Your task to perform on an android device: Open battery settings Image 0: 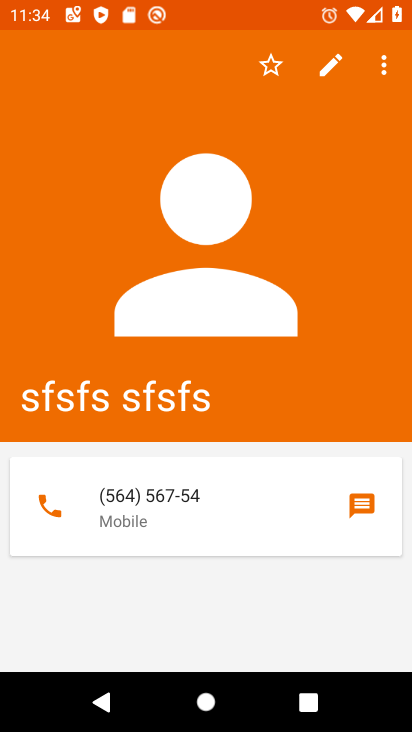
Step 0: press home button
Your task to perform on an android device: Open battery settings Image 1: 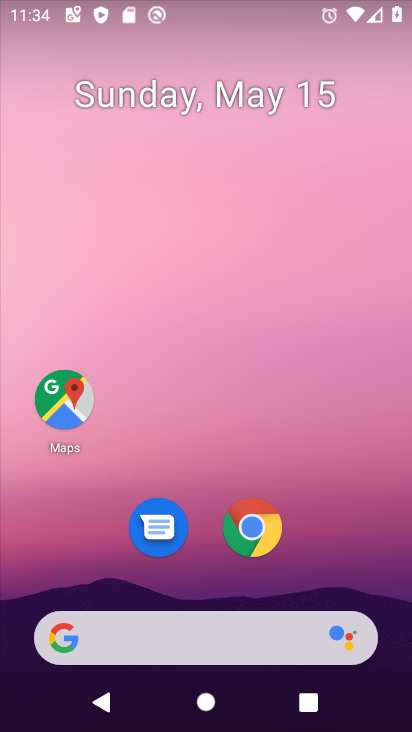
Step 1: drag from (328, 592) to (258, 95)
Your task to perform on an android device: Open battery settings Image 2: 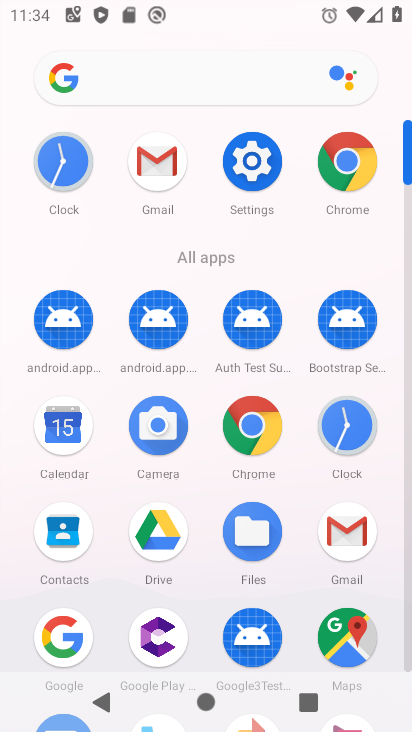
Step 2: click (265, 182)
Your task to perform on an android device: Open battery settings Image 3: 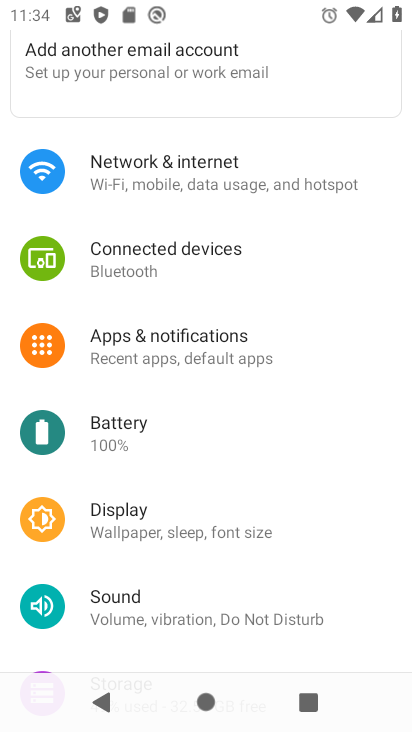
Step 3: click (185, 430)
Your task to perform on an android device: Open battery settings Image 4: 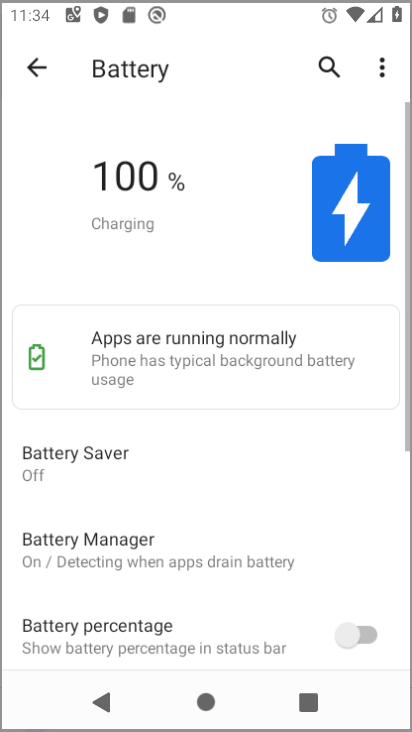
Step 4: task complete